Your task to perform on an android device: open app "Google Maps" Image 0: 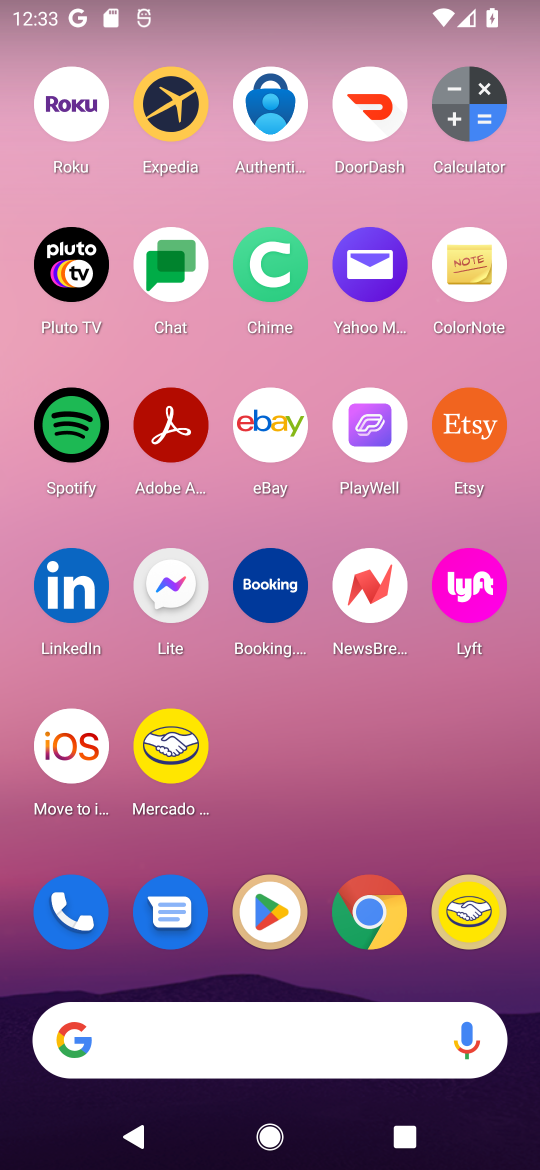
Step 0: drag from (341, 790) to (449, 18)
Your task to perform on an android device: open app "Google Maps" Image 1: 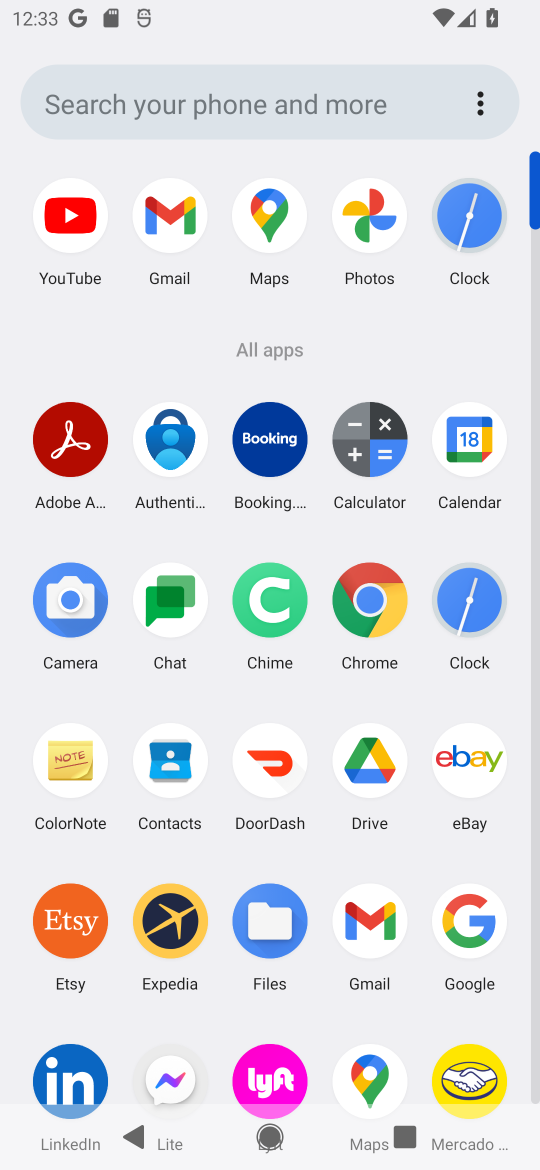
Step 1: click (247, 207)
Your task to perform on an android device: open app "Google Maps" Image 2: 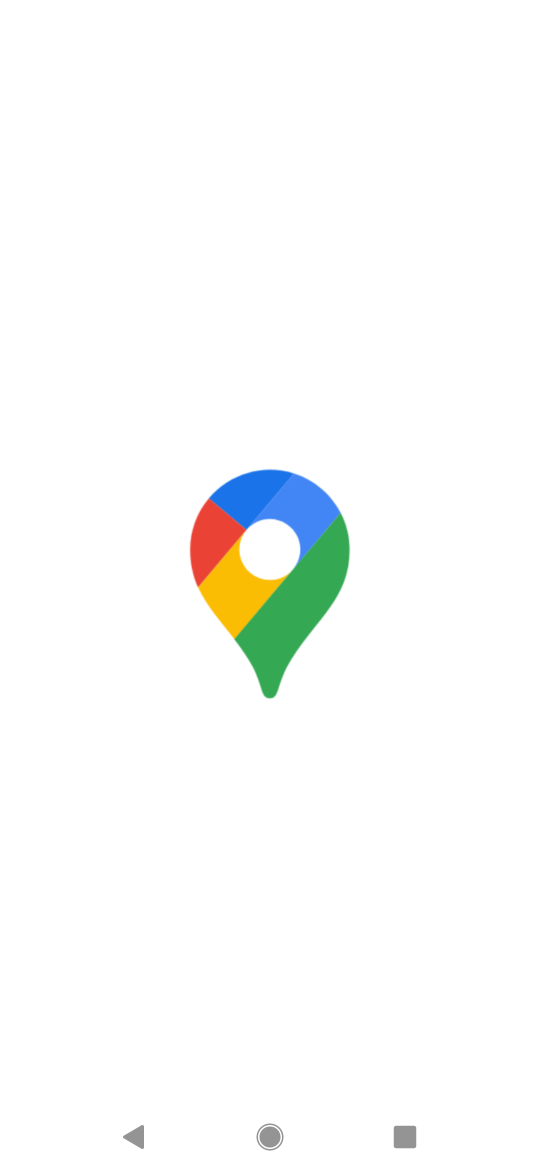
Step 2: task complete